Your task to perform on an android device: choose inbox layout in the gmail app Image 0: 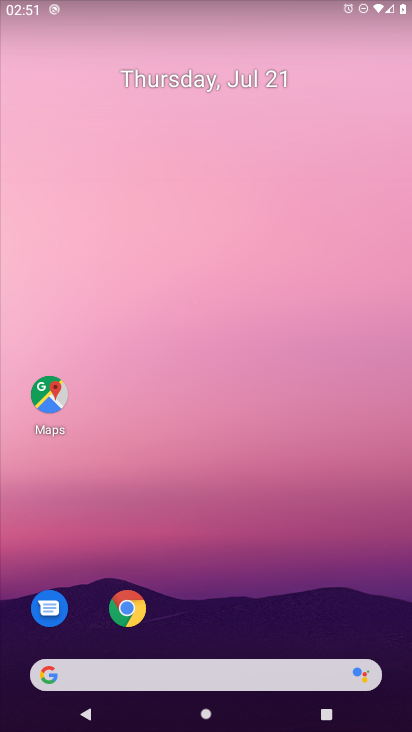
Step 0: press home button
Your task to perform on an android device: choose inbox layout in the gmail app Image 1: 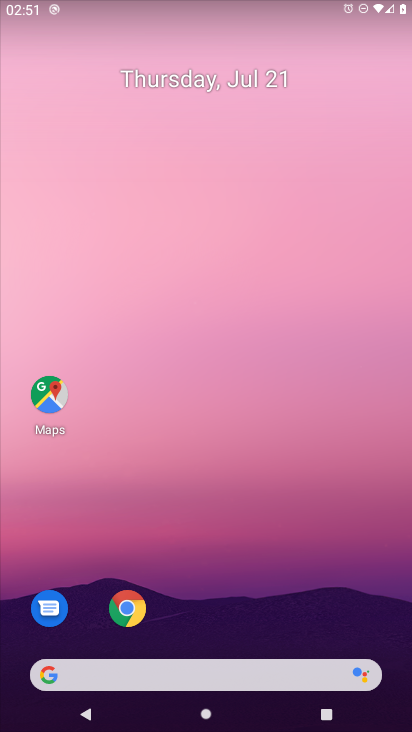
Step 1: drag from (231, 624) to (251, 123)
Your task to perform on an android device: choose inbox layout in the gmail app Image 2: 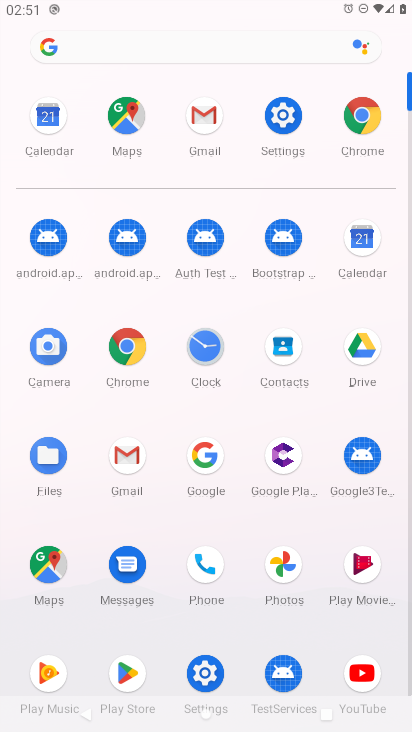
Step 2: click (195, 128)
Your task to perform on an android device: choose inbox layout in the gmail app Image 3: 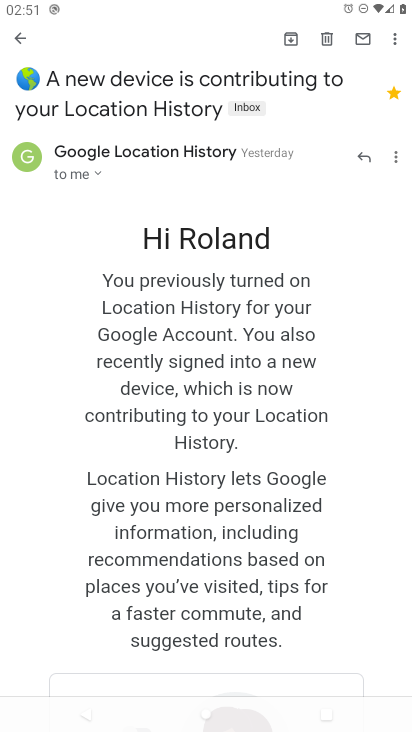
Step 3: click (16, 39)
Your task to perform on an android device: choose inbox layout in the gmail app Image 4: 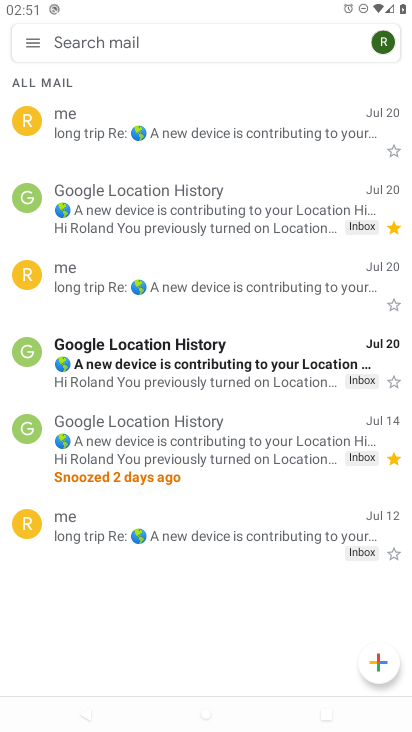
Step 4: click (24, 38)
Your task to perform on an android device: choose inbox layout in the gmail app Image 5: 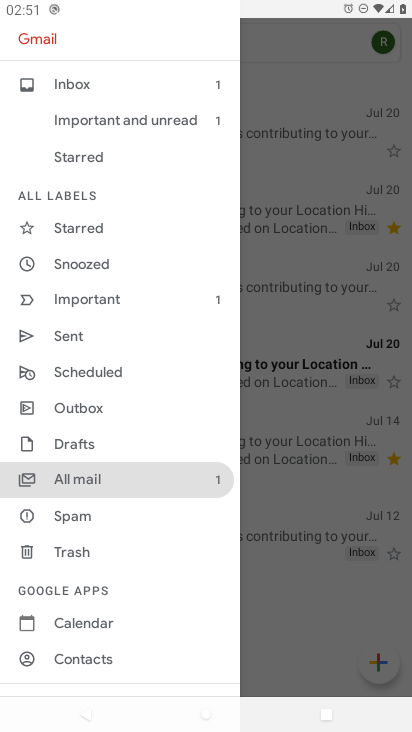
Step 5: drag from (177, 589) to (198, 154)
Your task to perform on an android device: choose inbox layout in the gmail app Image 6: 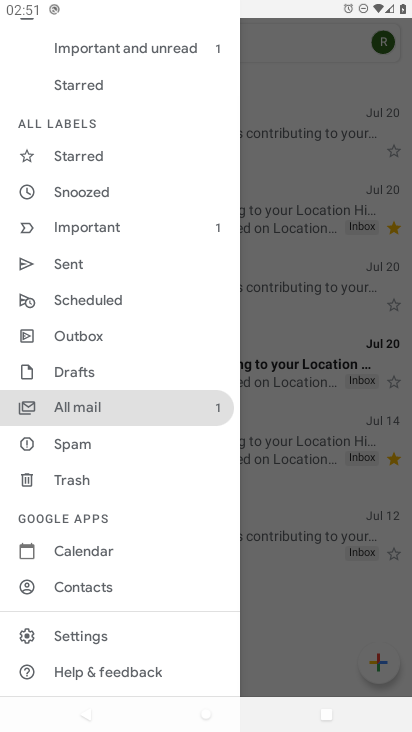
Step 6: click (75, 632)
Your task to perform on an android device: choose inbox layout in the gmail app Image 7: 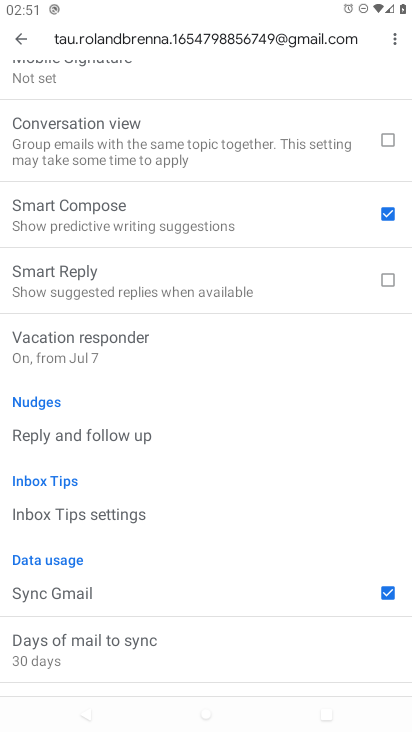
Step 7: drag from (266, 132) to (262, 696)
Your task to perform on an android device: choose inbox layout in the gmail app Image 8: 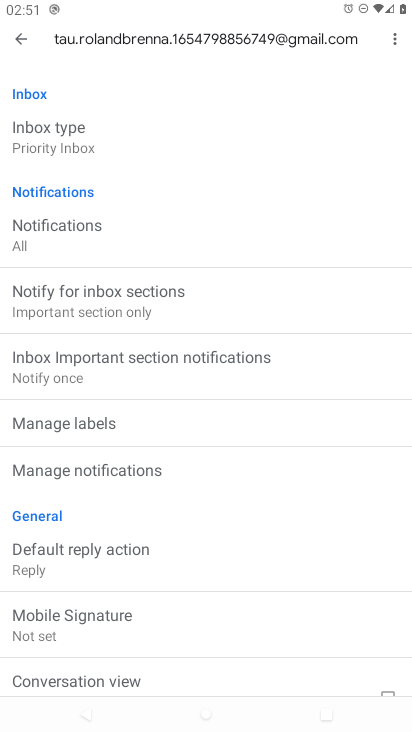
Step 8: click (46, 138)
Your task to perform on an android device: choose inbox layout in the gmail app Image 9: 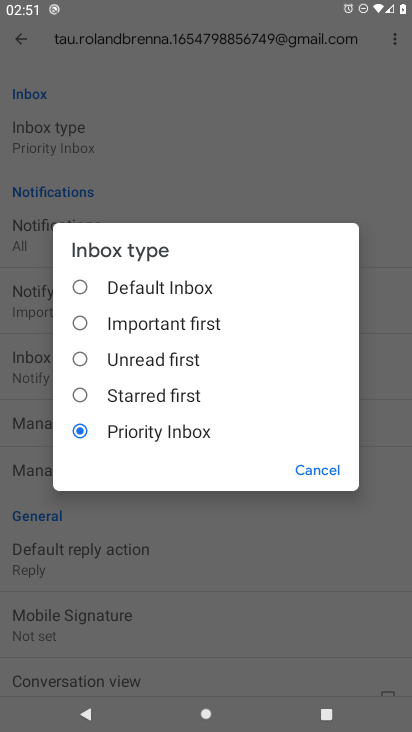
Step 9: click (82, 288)
Your task to perform on an android device: choose inbox layout in the gmail app Image 10: 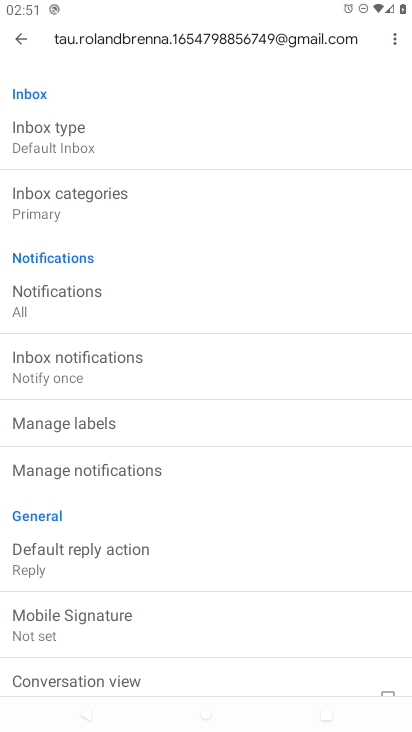
Step 10: task complete